Your task to perform on an android device: Go to settings Image 0: 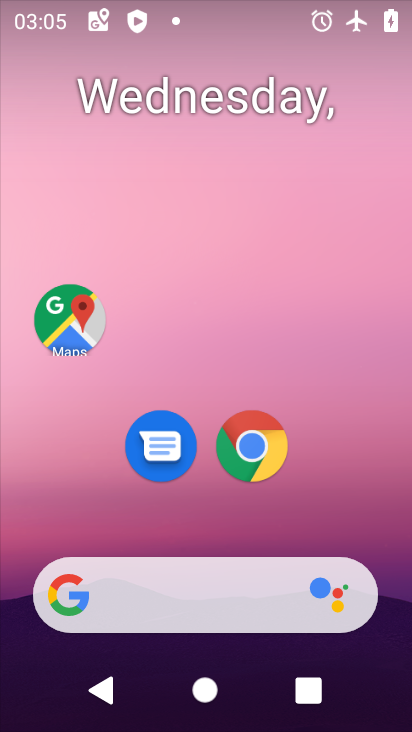
Step 0: drag from (217, 526) to (213, 134)
Your task to perform on an android device: Go to settings Image 1: 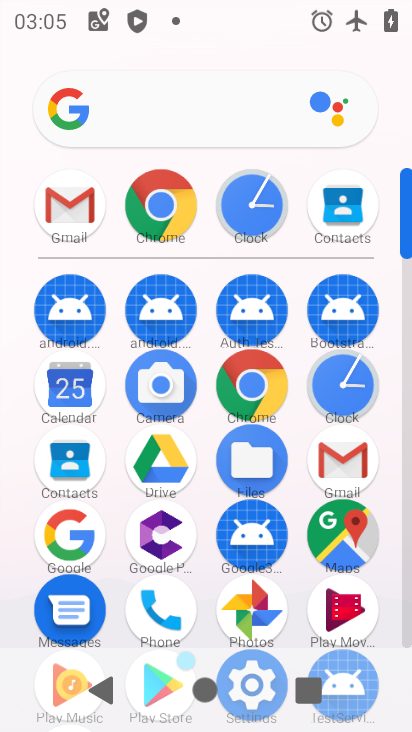
Step 1: drag from (180, 503) to (254, 249)
Your task to perform on an android device: Go to settings Image 2: 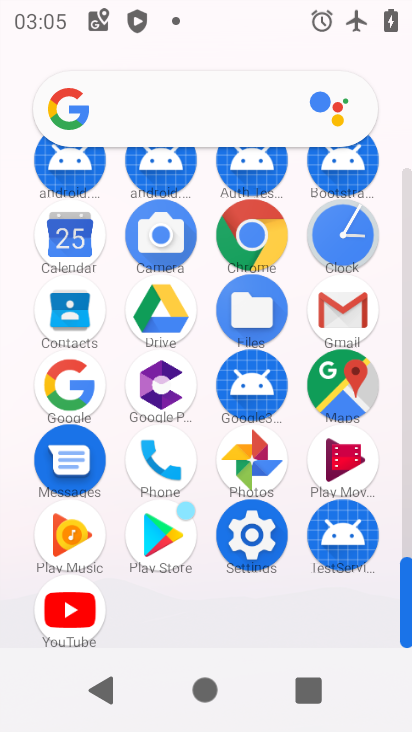
Step 2: click (252, 529)
Your task to perform on an android device: Go to settings Image 3: 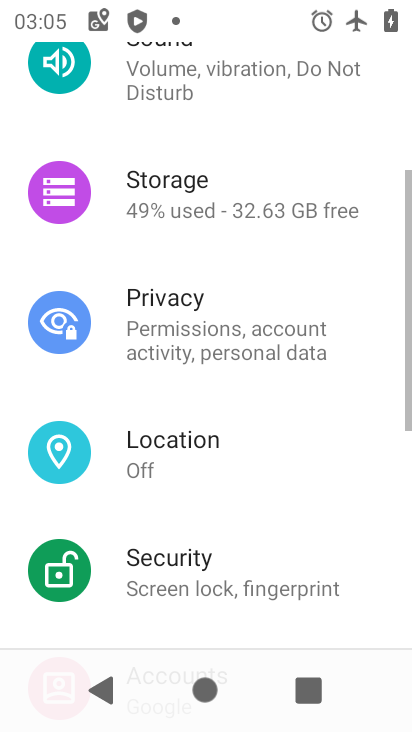
Step 3: task complete